Your task to perform on an android device: Go to location settings Image 0: 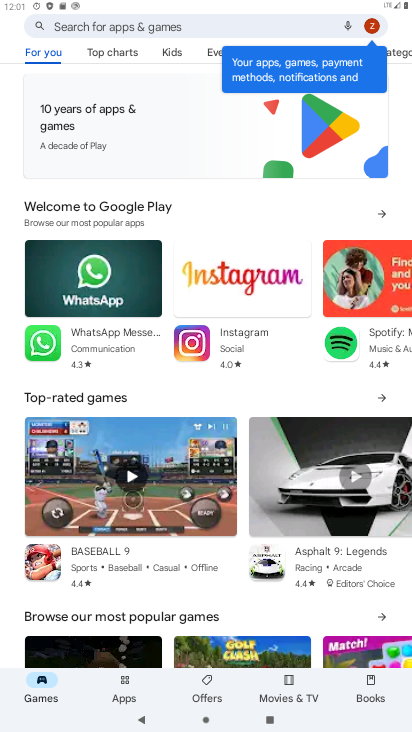
Step 0: press home button
Your task to perform on an android device: Go to location settings Image 1: 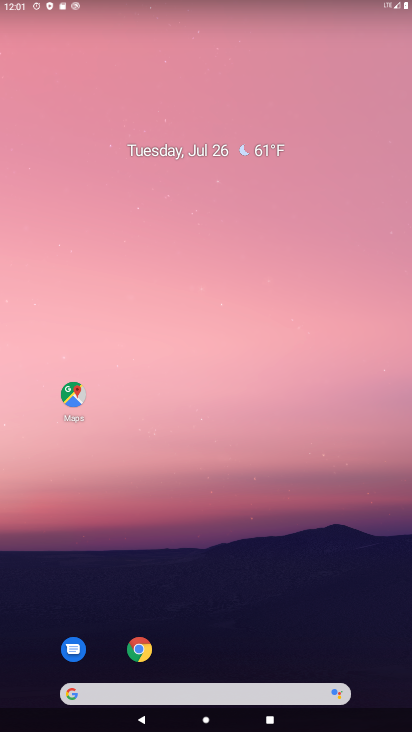
Step 1: drag from (209, 640) to (352, 5)
Your task to perform on an android device: Go to location settings Image 2: 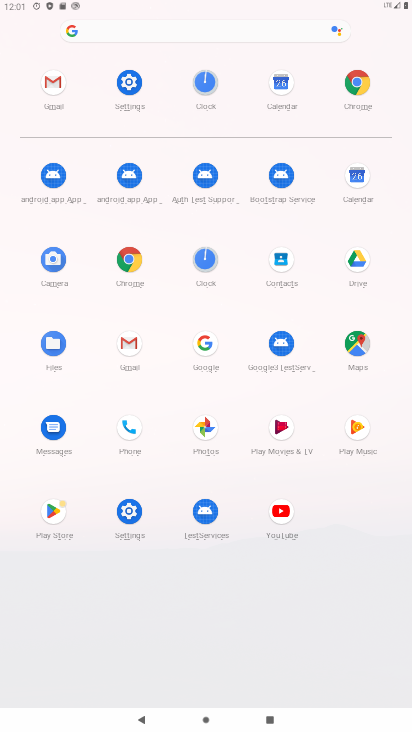
Step 2: click (128, 521)
Your task to perform on an android device: Go to location settings Image 3: 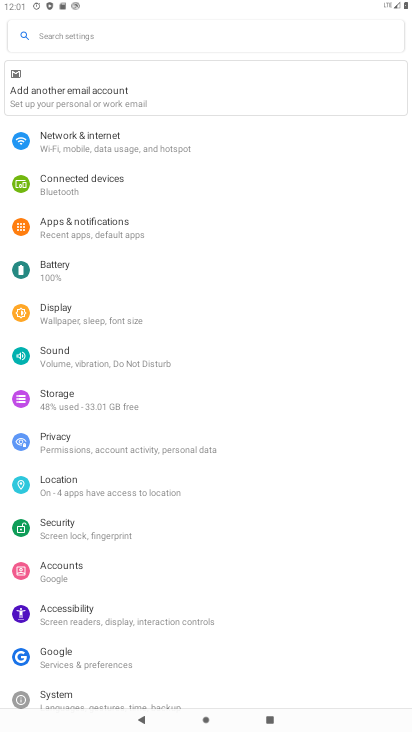
Step 3: drag from (96, 620) to (91, 352)
Your task to perform on an android device: Go to location settings Image 4: 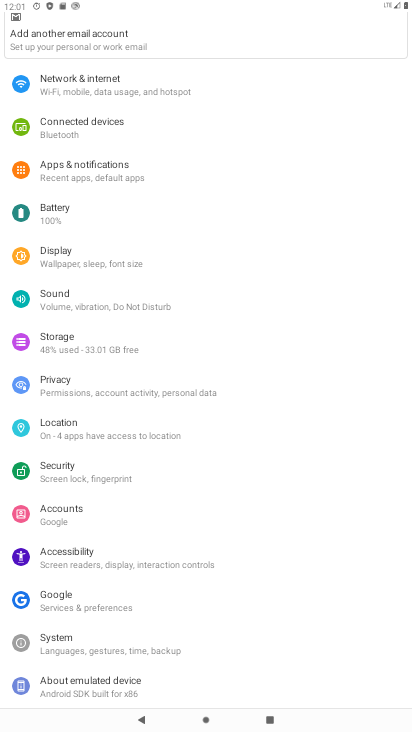
Step 4: drag from (63, 154) to (112, 409)
Your task to perform on an android device: Go to location settings Image 5: 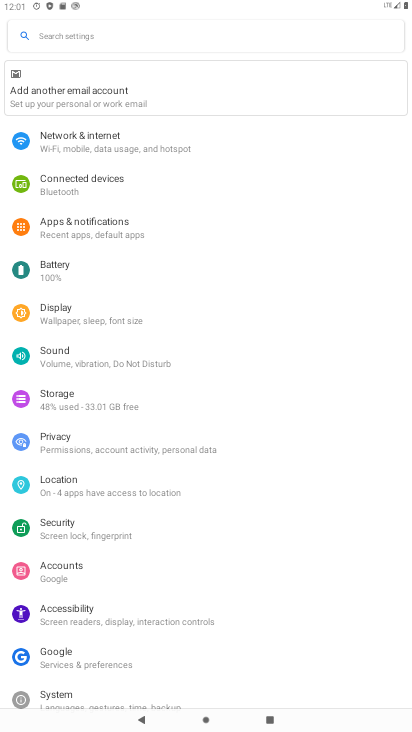
Step 5: click (93, 481)
Your task to perform on an android device: Go to location settings Image 6: 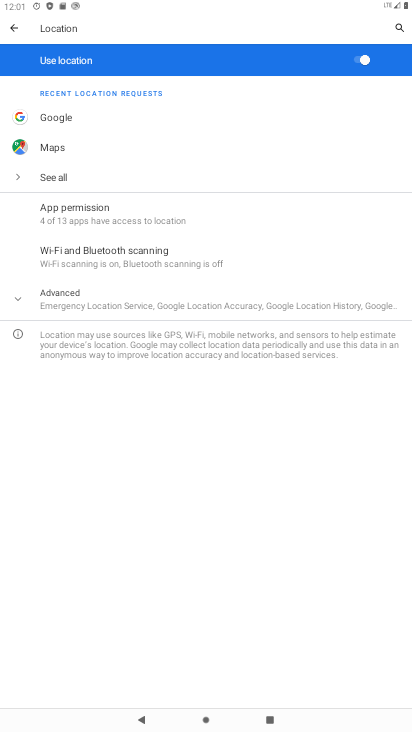
Step 6: task complete